Your task to perform on an android device: turn off smart reply in the gmail app Image 0: 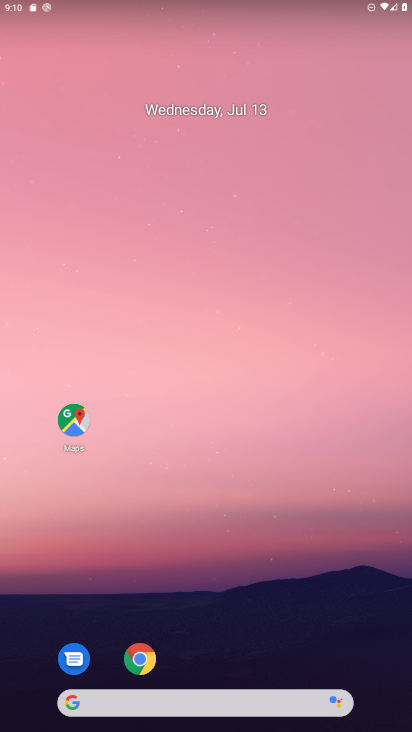
Step 0: drag from (217, 642) to (203, 142)
Your task to perform on an android device: turn off smart reply in the gmail app Image 1: 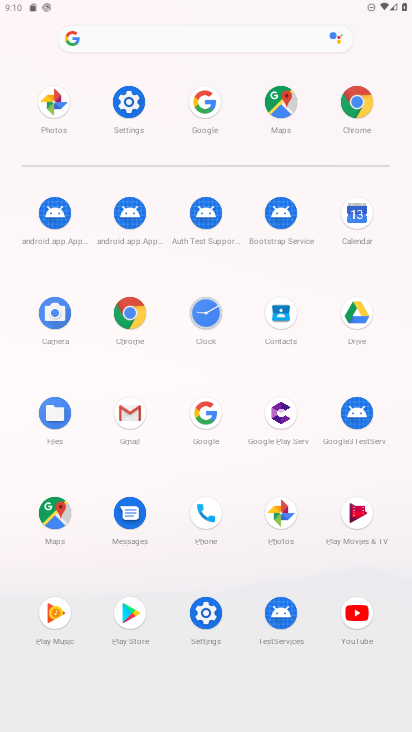
Step 1: click (132, 414)
Your task to perform on an android device: turn off smart reply in the gmail app Image 2: 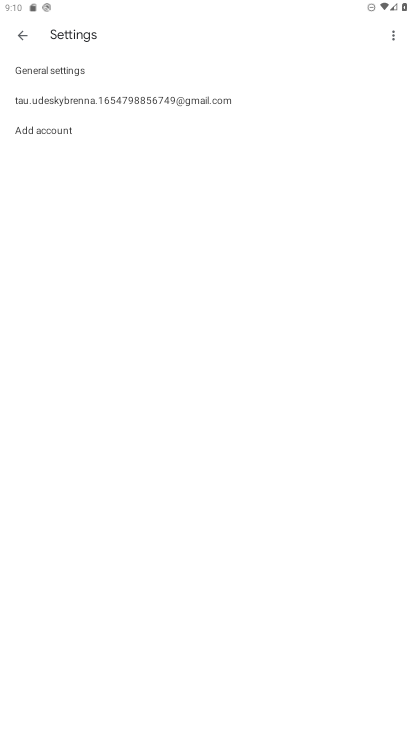
Step 2: click (79, 97)
Your task to perform on an android device: turn off smart reply in the gmail app Image 3: 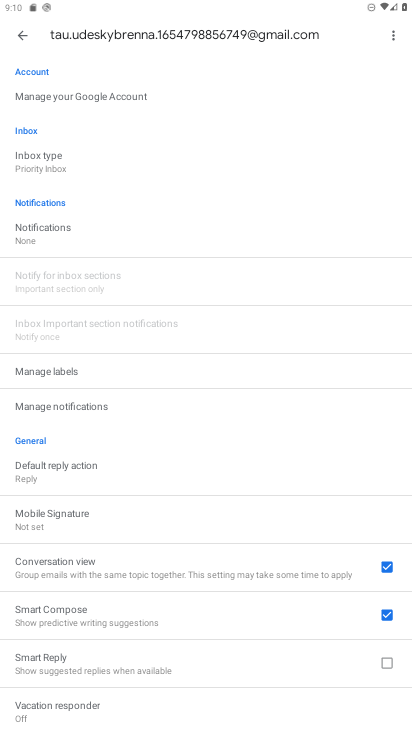
Step 3: task complete